Your task to perform on an android device: Open battery settings Image 0: 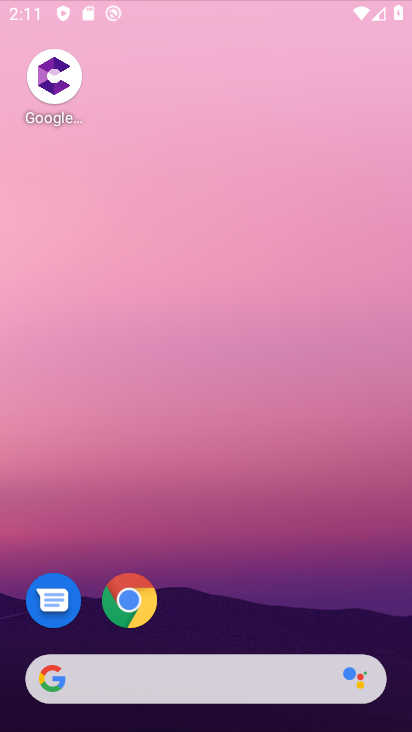
Step 0: drag from (199, 715) to (128, 326)
Your task to perform on an android device: Open battery settings Image 1: 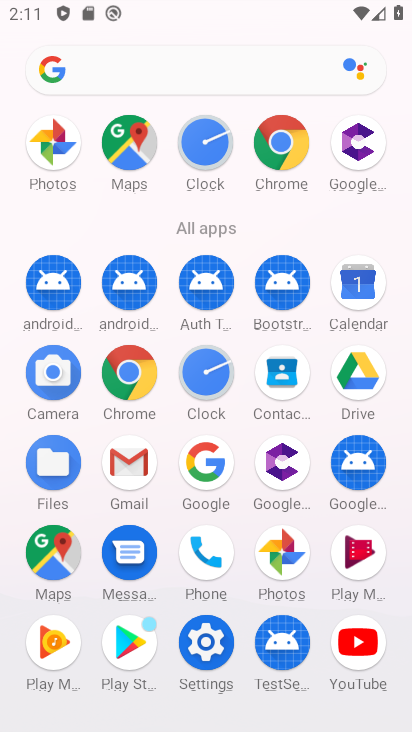
Step 1: click (209, 639)
Your task to perform on an android device: Open battery settings Image 2: 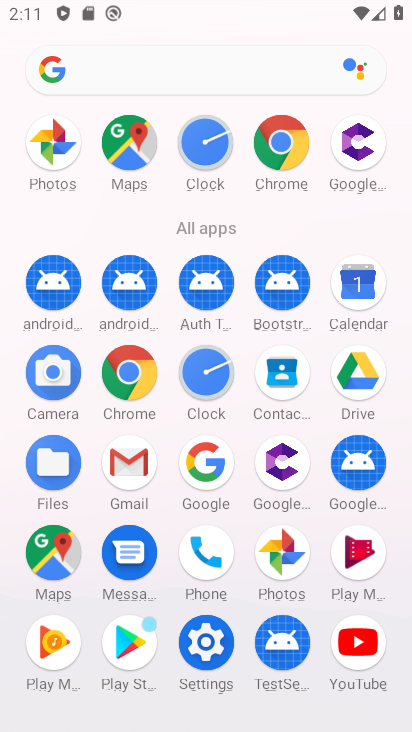
Step 2: click (210, 640)
Your task to perform on an android device: Open battery settings Image 3: 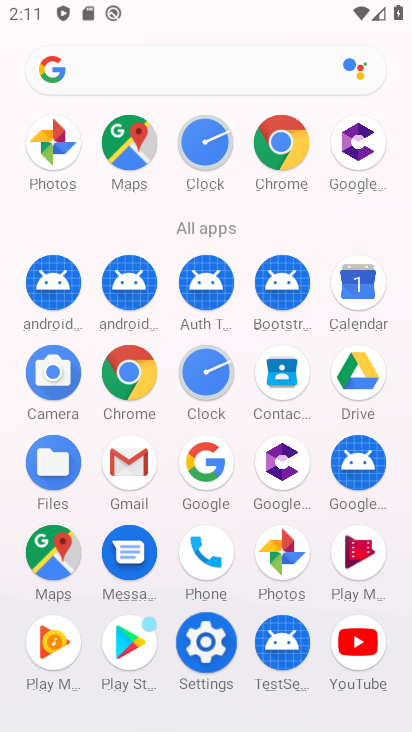
Step 3: click (210, 640)
Your task to perform on an android device: Open battery settings Image 4: 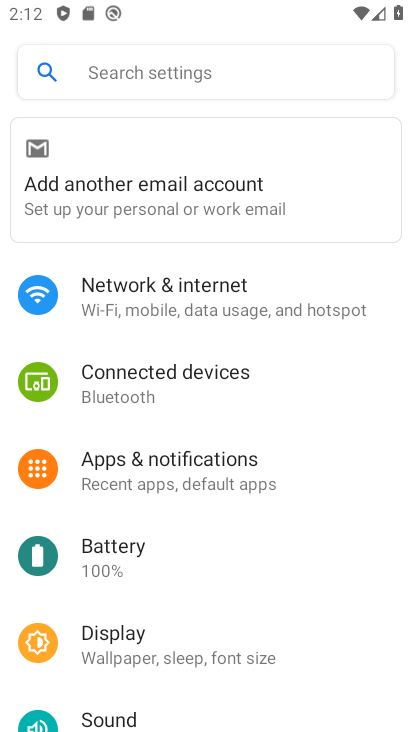
Step 4: click (119, 405)
Your task to perform on an android device: Open battery settings Image 5: 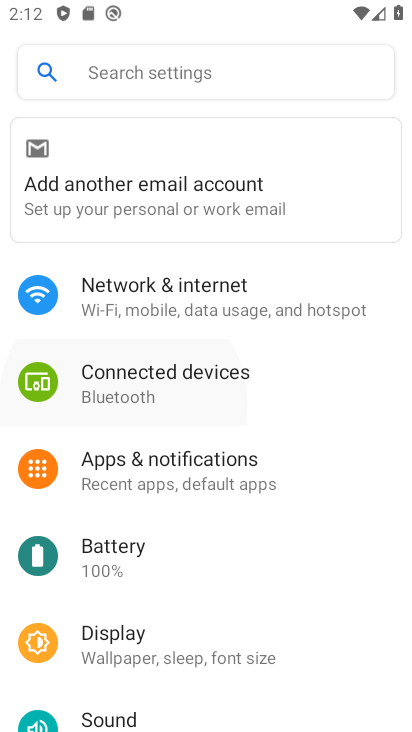
Step 5: drag from (168, 590) to (156, 315)
Your task to perform on an android device: Open battery settings Image 6: 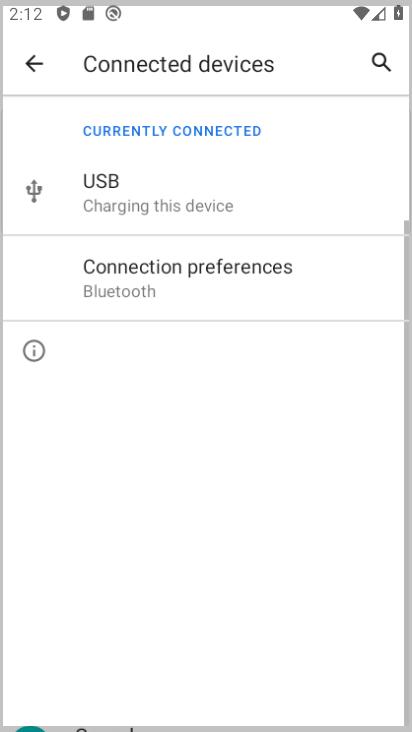
Step 6: drag from (171, 578) to (138, 259)
Your task to perform on an android device: Open battery settings Image 7: 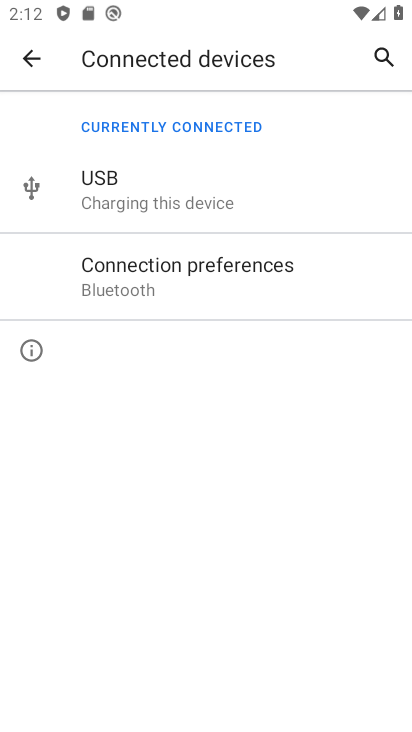
Step 7: click (32, 48)
Your task to perform on an android device: Open battery settings Image 8: 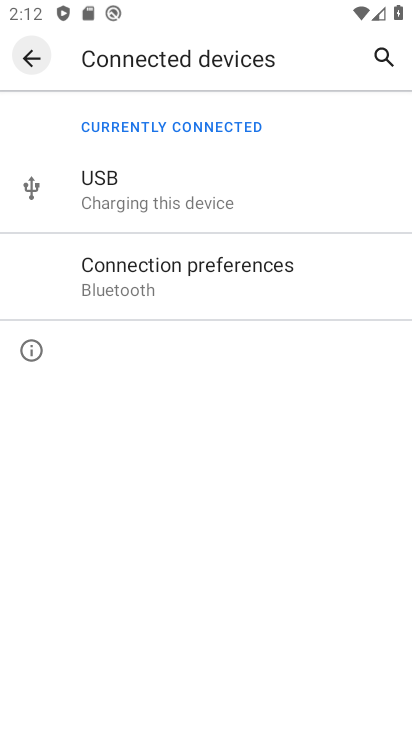
Step 8: click (32, 48)
Your task to perform on an android device: Open battery settings Image 9: 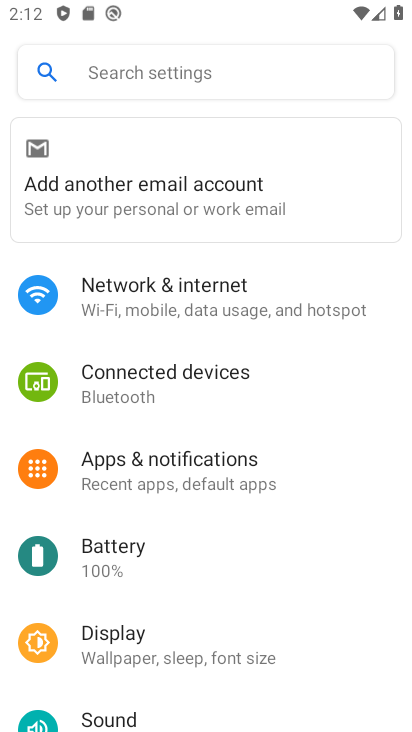
Step 9: click (103, 563)
Your task to perform on an android device: Open battery settings Image 10: 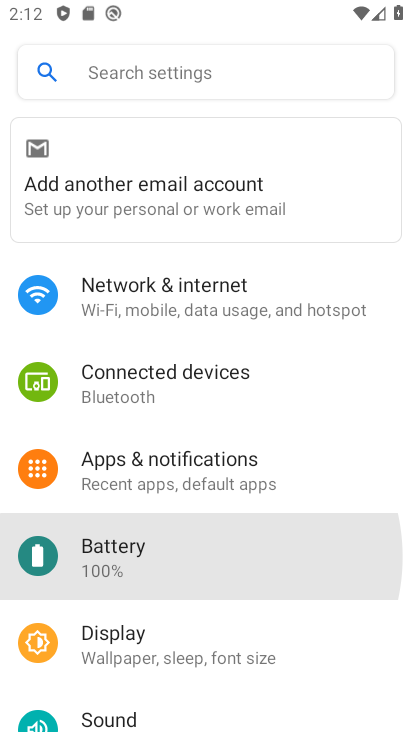
Step 10: click (115, 542)
Your task to perform on an android device: Open battery settings Image 11: 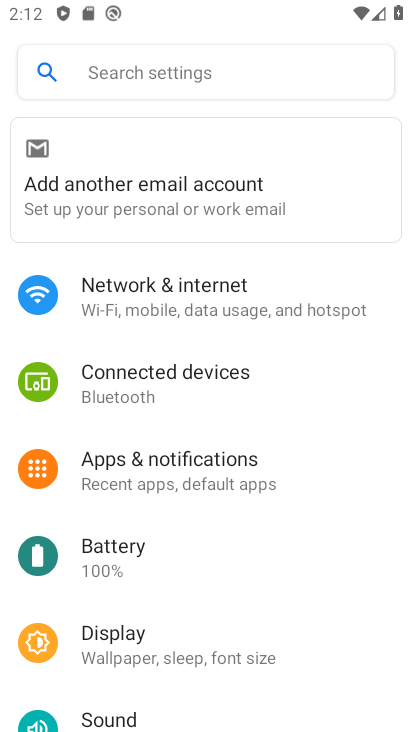
Step 11: click (115, 546)
Your task to perform on an android device: Open battery settings Image 12: 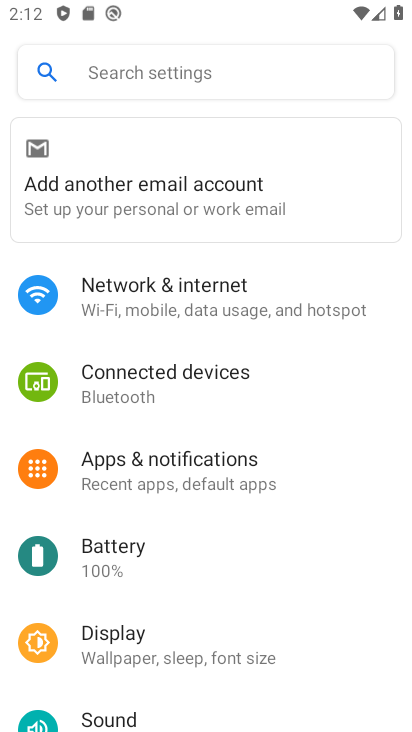
Step 12: click (105, 576)
Your task to perform on an android device: Open battery settings Image 13: 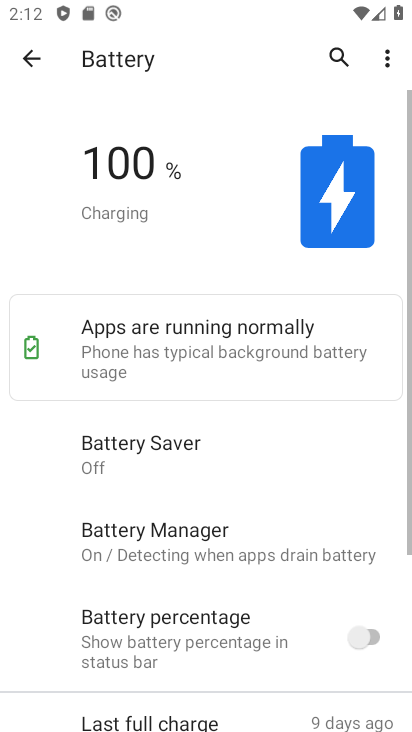
Step 13: click (102, 576)
Your task to perform on an android device: Open battery settings Image 14: 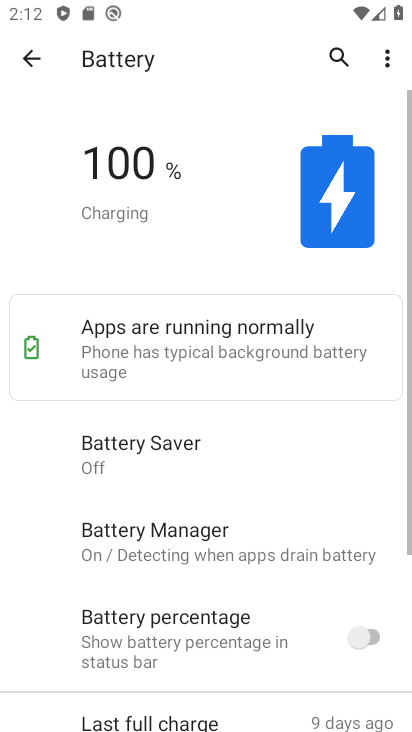
Step 14: click (99, 572)
Your task to perform on an android device: Open battery settings Image 15: 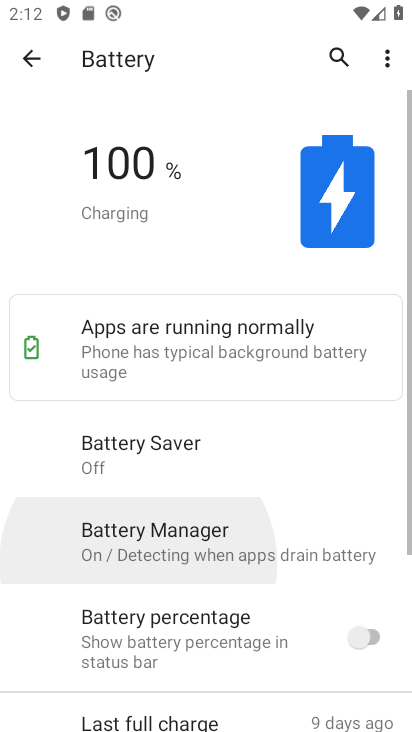
Step 15: click (98, 571)
Your task to perform on an android device: Open battery settings Image 16: 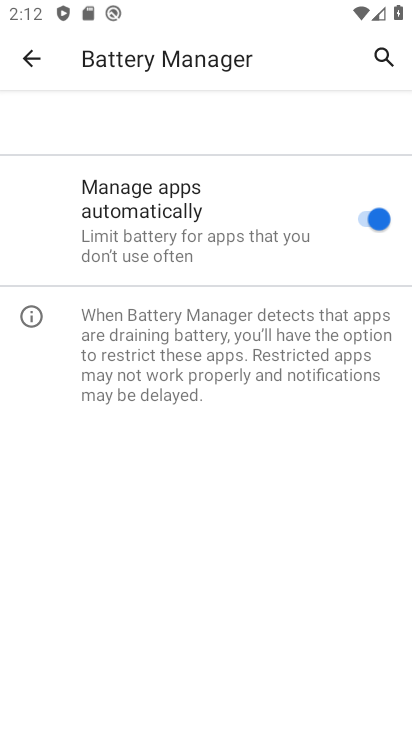
Step 16: click (29, 46)
Your task to perform on an android device: Open battery settings Image 17: 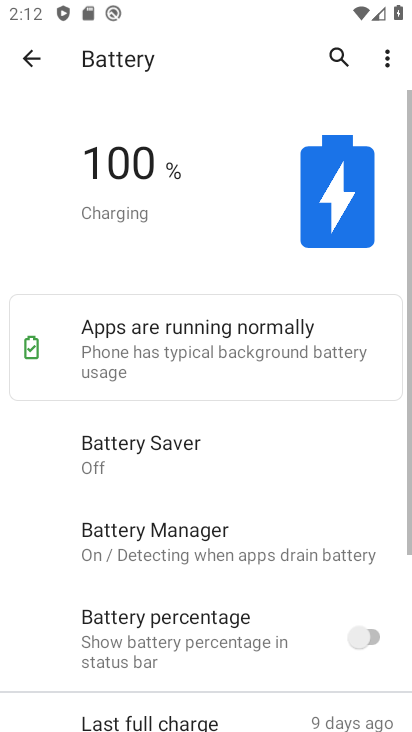
Step 17: task complete